Your task to perform on an android device: turn on the 24-hour format for clock Image 0: 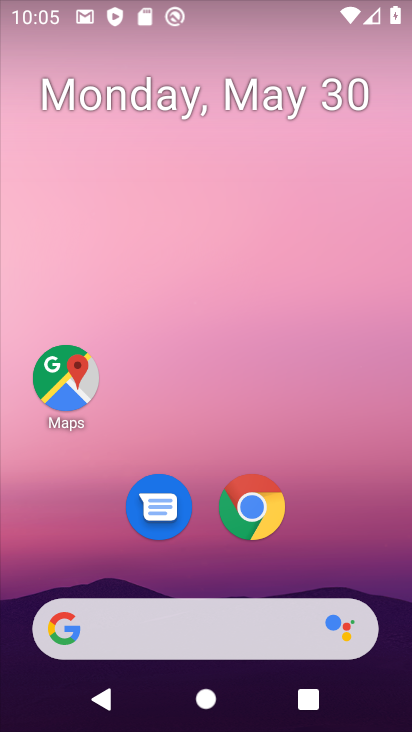
Step 0: drag from (357, 541) to (371, 164)
Your task to perform on an android device: turn on the 24-hour format for clock Image 1: 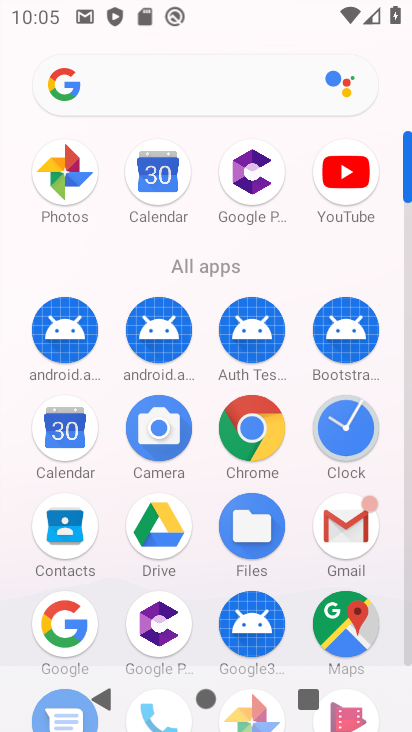
Step 1: click (356, 432)
Your task to perform on an android device: turn on the 24-hour format for clock Image 2: 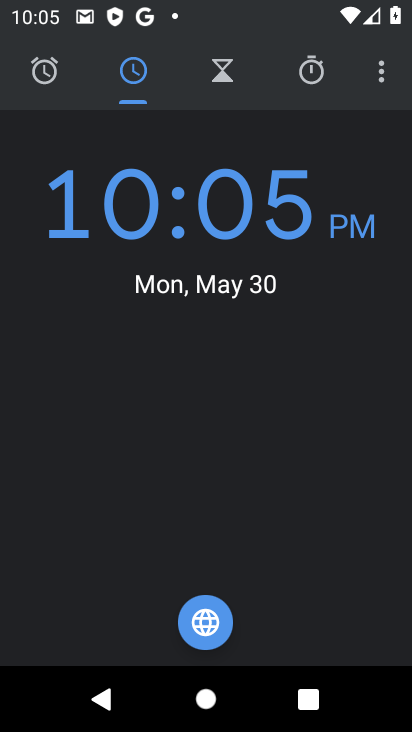
Step 2: click (383, 86)
Your task to perform on an android device: turn on the 24-hour format for clock Image 3: 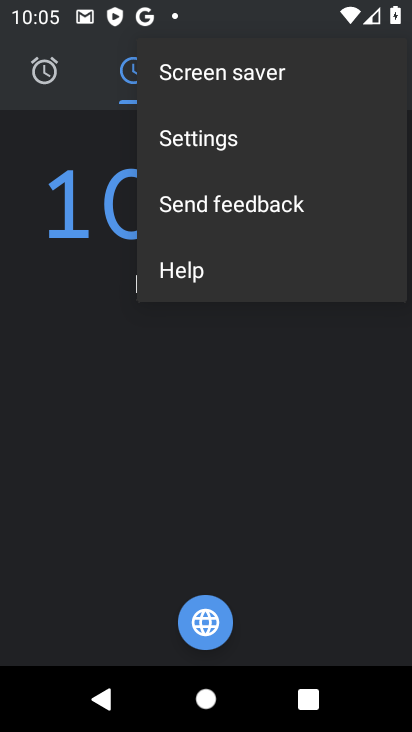
Step 3: click (233, 150)
Your task to perform on an android device: turn on the 24-hour format for clock Image 4: 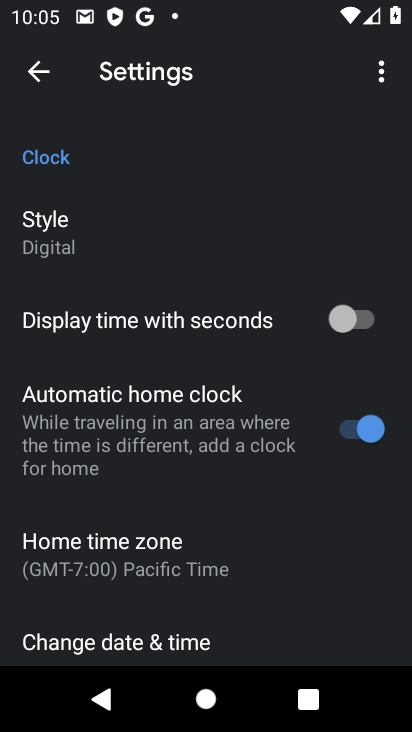
Step 4: drag from (303, 511) to (319, 397)
Your task to perform on an android device: turn on the 24-hour format for clock Image 5: 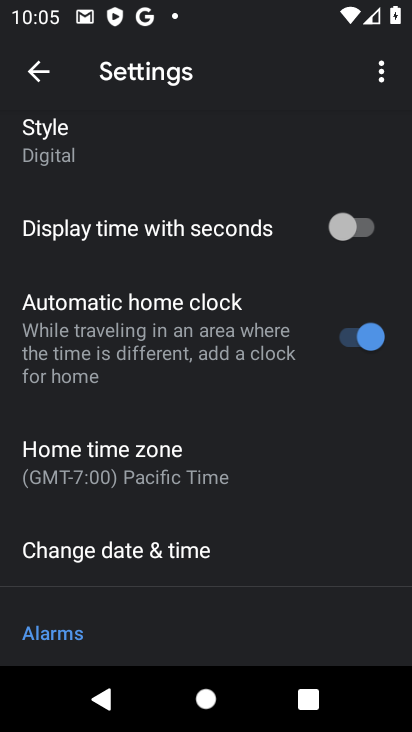
Step 5: drag from (322, 516) to (316, 364)
Your task to perform on an android device: turn on the 24-hour format for clock Image 6: 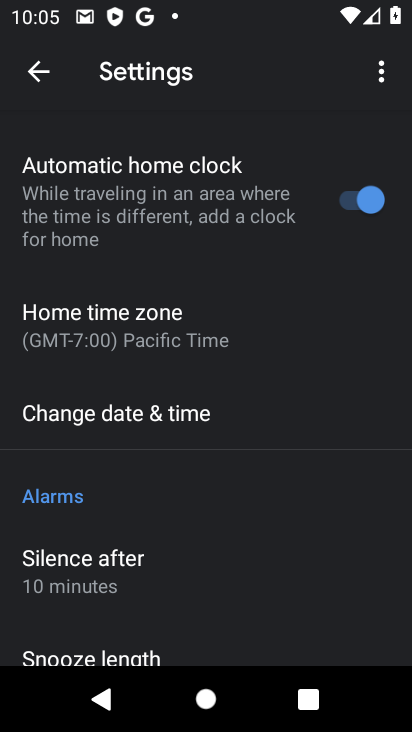
Step 6: drag from (327, 467) to (332, 348)
Your task to perform on an android device: turn on the 24-hour format for clock Image 7: 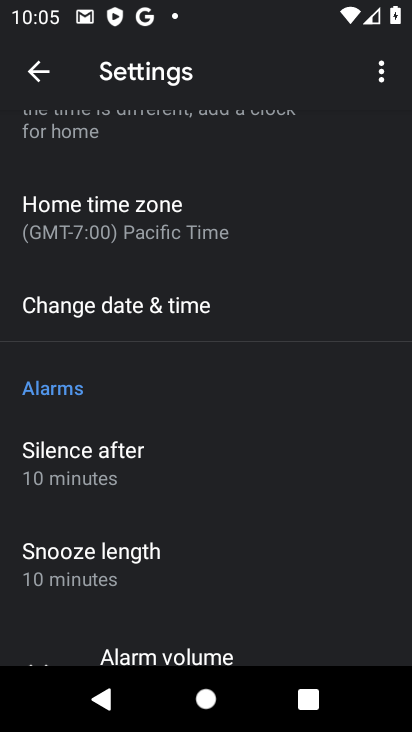
Step 7: drag from (341, 487) to (338, 372)
Your task to perform on an android device: turn on the 24-hour format for clock Image 8: 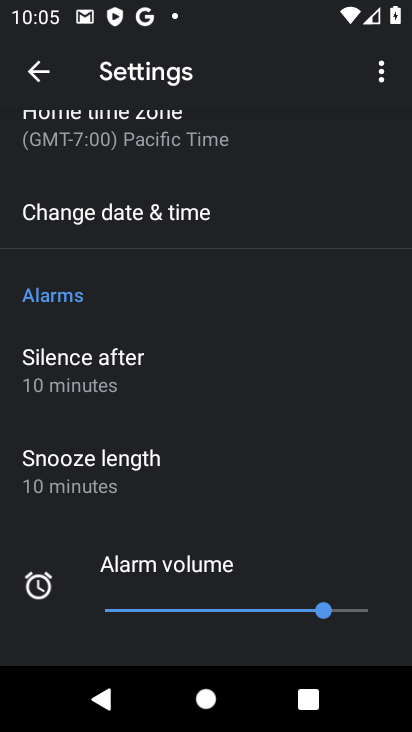
Step 8: drag from (347, 501) to (354, 393)
Your task to perform on an android device: turn on the 24-hour format for clock Image 9: 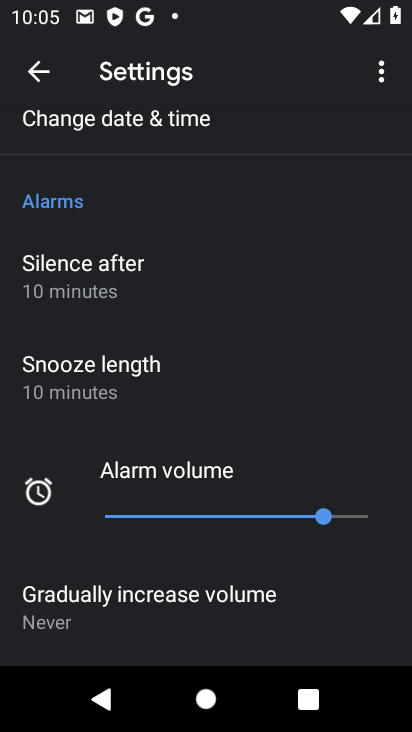
Step 9: drag from (356, 540) to (363, 421)
Your task to perform on an android device: turn on the 24-hour format for clock Image 10: 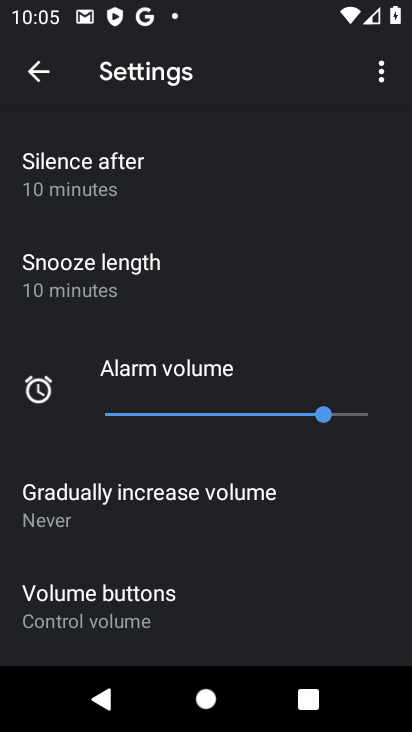
Step 10: drag from (360, 533) to (356, 415)
Your task to perform on an android device: turn on the 24-hour format for clock Image 11: 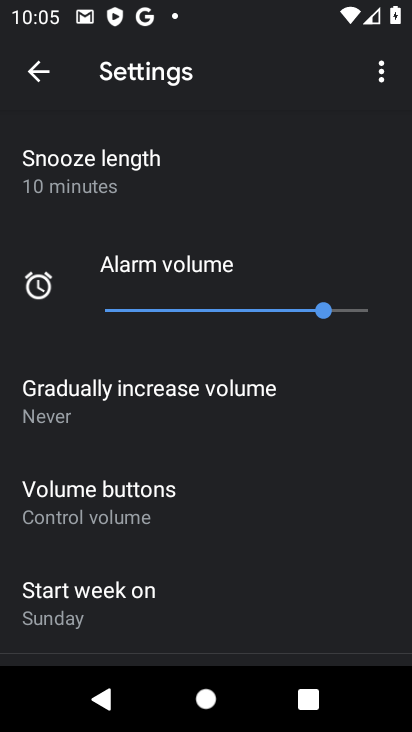
Step 11: drag from (352, 535) to (349, 419)
Your task to perform on an android device: turn on the 24-hour format for clock Image 12: 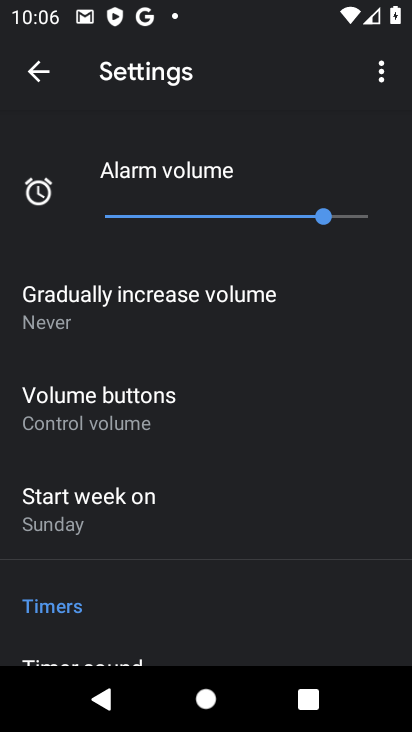
Step 12: drag from (357, 552) to (356, 403)
Your task to perform on an android device: turn on the 24-hour format for clock Image 13: 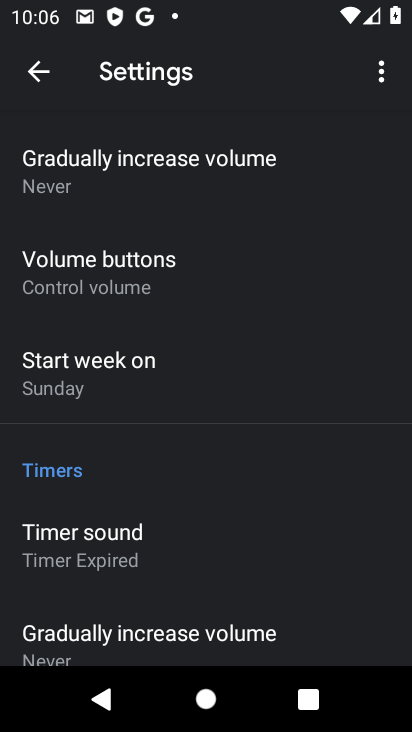
Step 13: drag from (358, 550) to (366, 325)
Your task to perform on an android device: turn on the 24-hour format for clock Image 14: 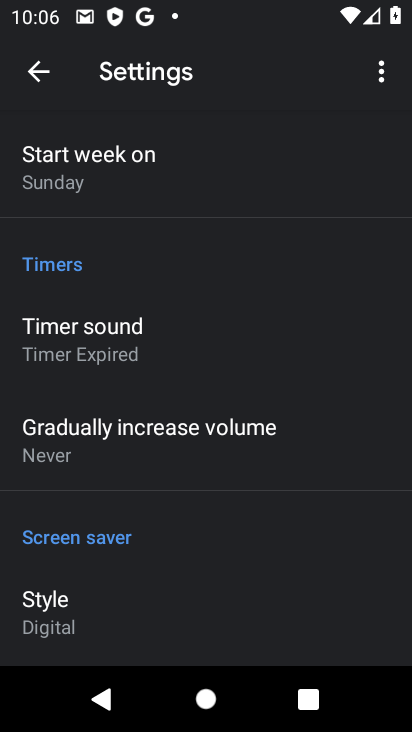
Step 14: drag from (363, 254) to (361, 391)
Your task to perform on an android device: turn on the 24-hour format for clock Image 15: 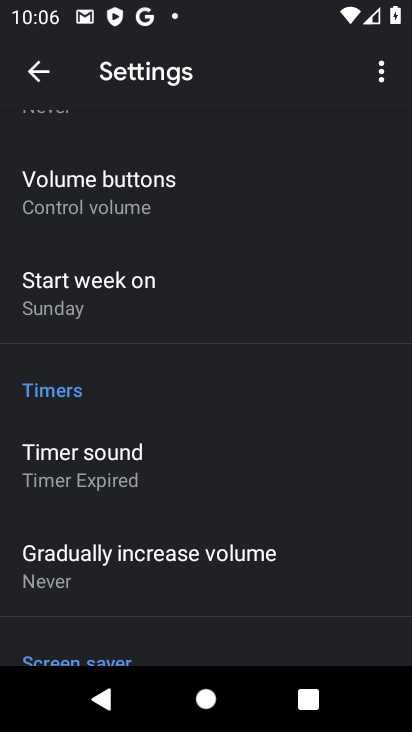
Step 15: drag from (327, 202) to (329, 323)
Your task to perform on an android device: turn on the 24-hour format for clock Image 16: 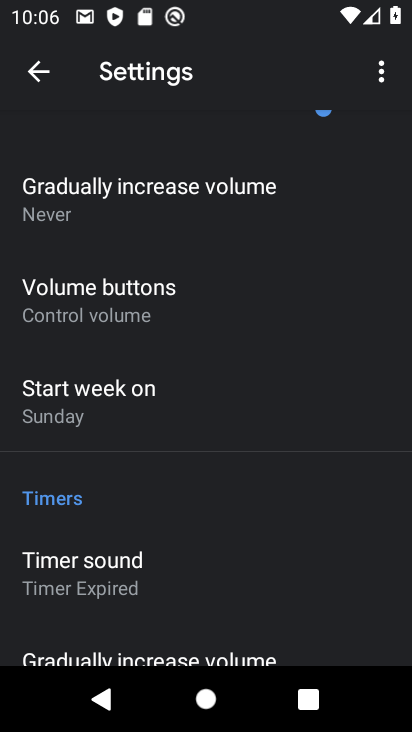
Step 16: drag from (331, 176) to (340, 252)
Your task to perform on an android device: turn on the 24-hour format for clock Image 17: 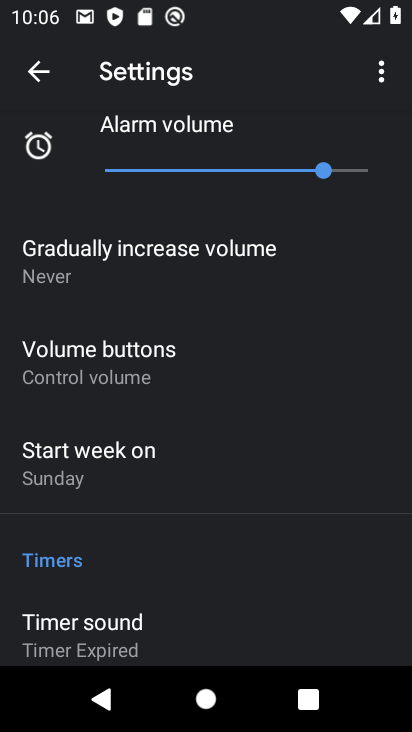
Step 17: drag from (361, 139) to (361, 296)
Your task to perform on an android device: turn on the 24-hour format for clock Image 18: 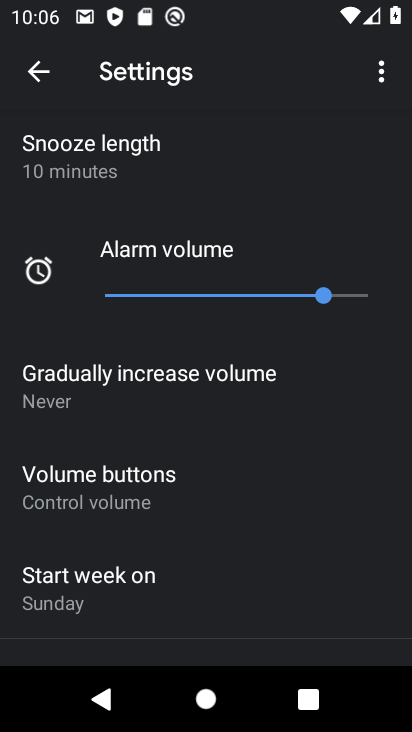
Step 18: drag from (341, 171) to (352, 391)
Your task to perform on an android device: turn on the 24-hour format for clock Image 19: 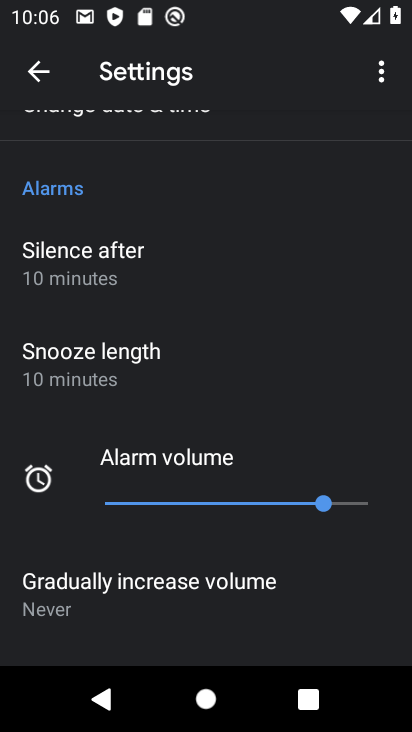
Step 19: drag from (296, 174) to (311, 343)
Your task to perform on an android device: turn on the 24-hour format for clock Image 20: 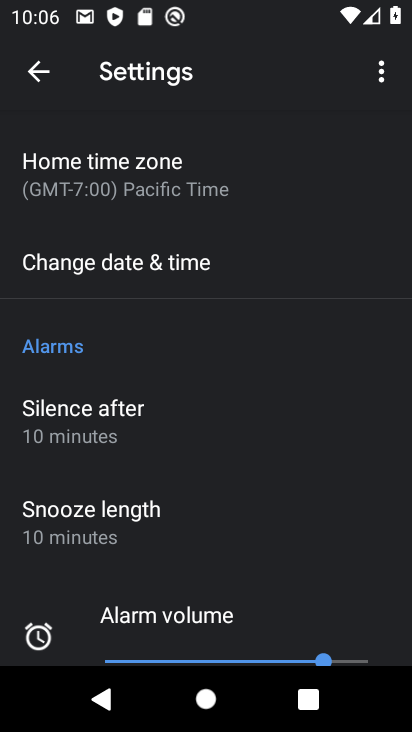
Step 20: click (238, 267)
Your task to perform on an android device: turn on the 24-hour format for clock Image 21: 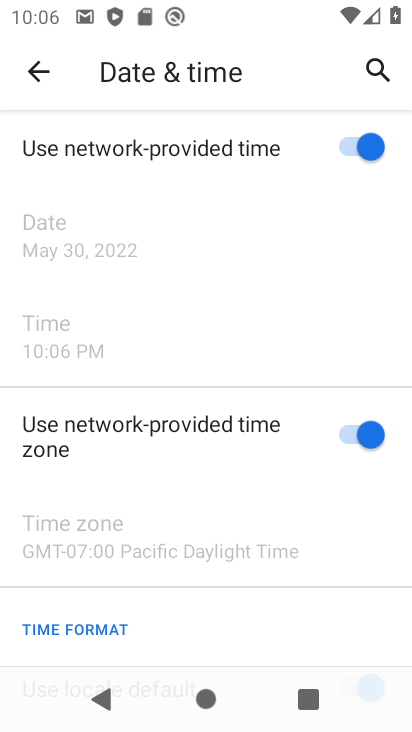
Step 21: drag from (275, 405) to (280, 299)
Your task to perform on an android device: turn on the 24-hour format for clock Image 22: 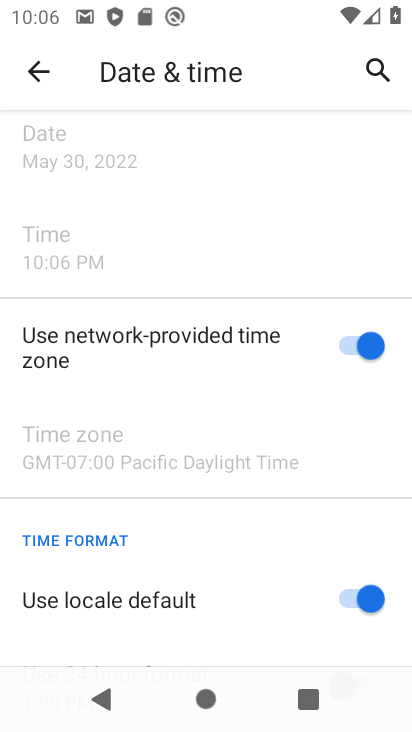
Step 22: drag from (283, 431) to (297, 310)
Your task to perform on an android device: turn on the 24-hour format for clock Image 23: 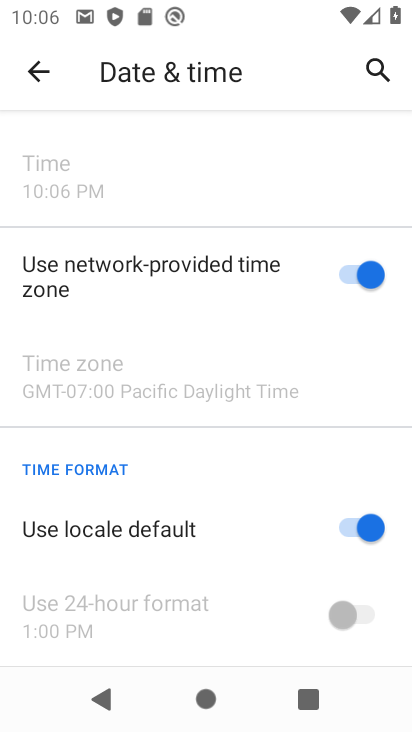
Step 23: drag from (274, 468) to (295, 342)
Your task to perform on an android device: turn on the 24-hour format for clock Image 24: 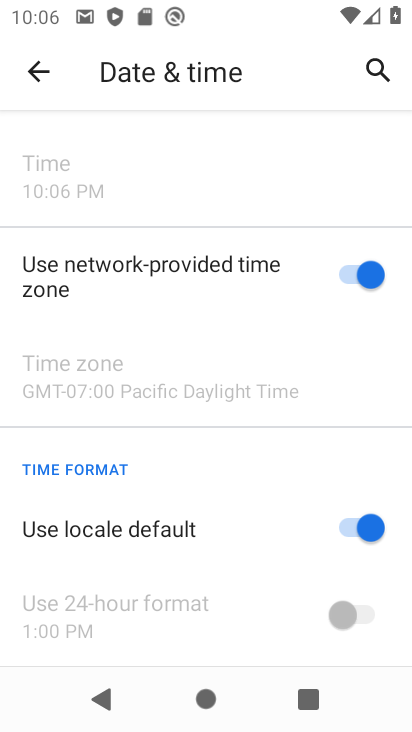
Step 24: click (360, 518)
Your task to perform on an android device: turn on the 24-hour format for clock Image 25: 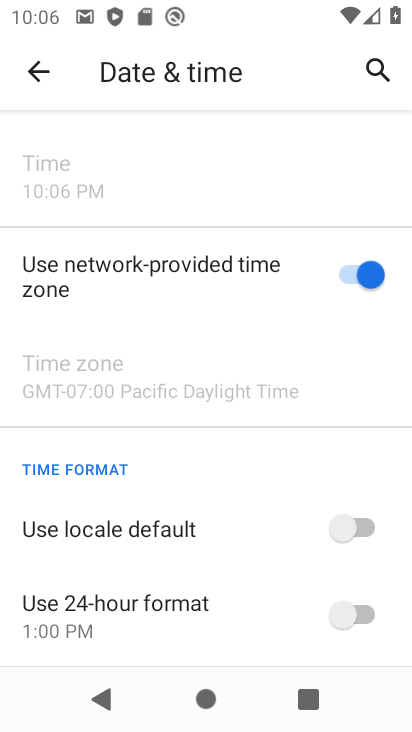
Step 25: click (339, 614)
Your task to perform on an android device: turn on the 24-hour format for clock Image 26: 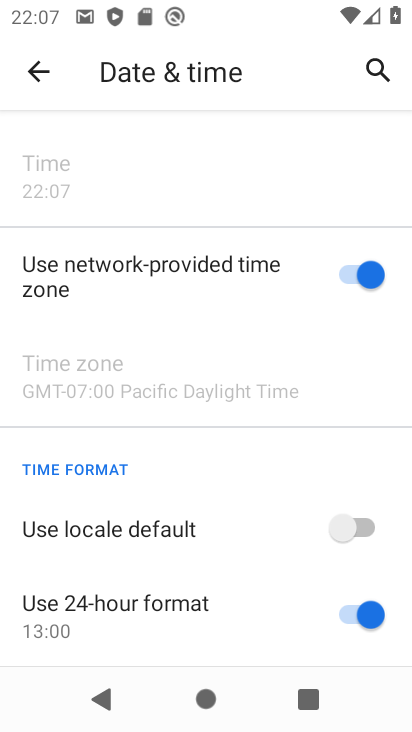
Step 26: task complete